Your task to perform on an android device: star an email in the gmail app Image 0: 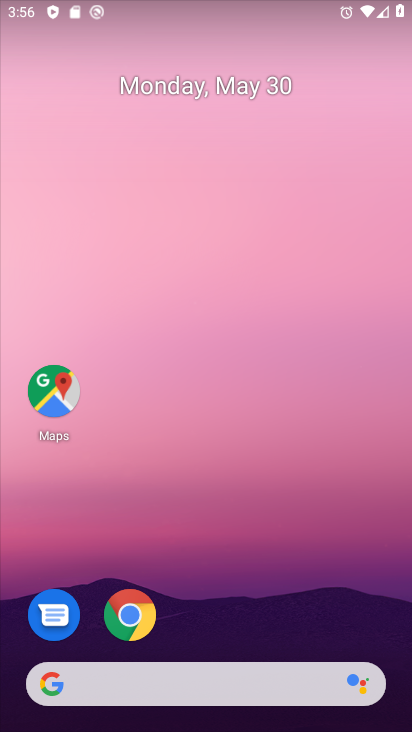
Step 0: drag from (242, 592) to (283, 29)
Your task to perform on an android device: star an email in the gmail app Image 1: 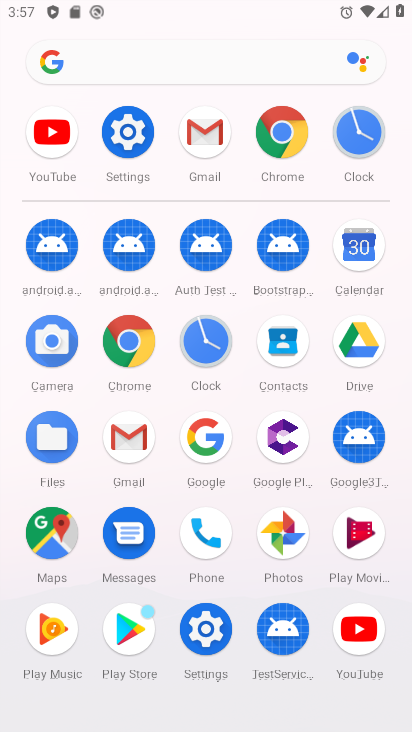
Step 1: click (214, 136)
Your task to perform on an android device: star an email in the gmail app Image 2: 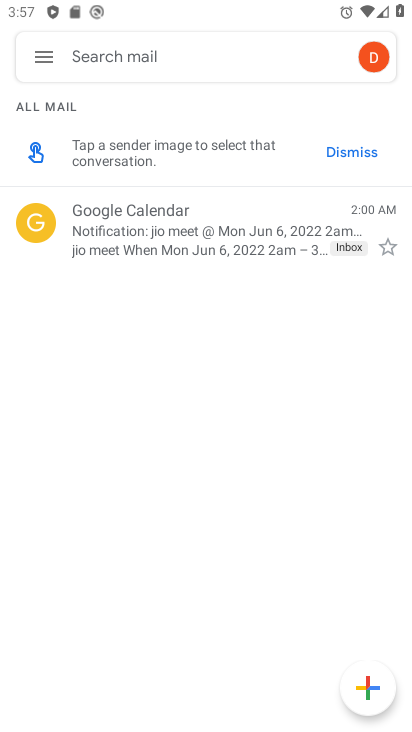
Step 2: click (383, 242)
Your task to perform on an android device: star an email in the gmail app Image 3: 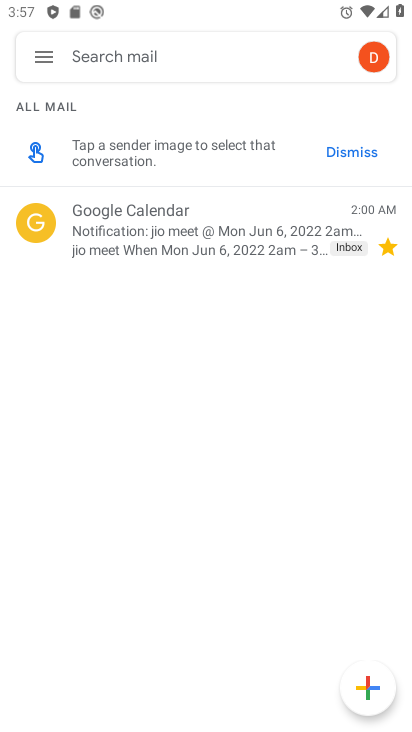
Step 3: task complete